Your task to perform on an android device: visit the assistant section in the google photos Image 0: 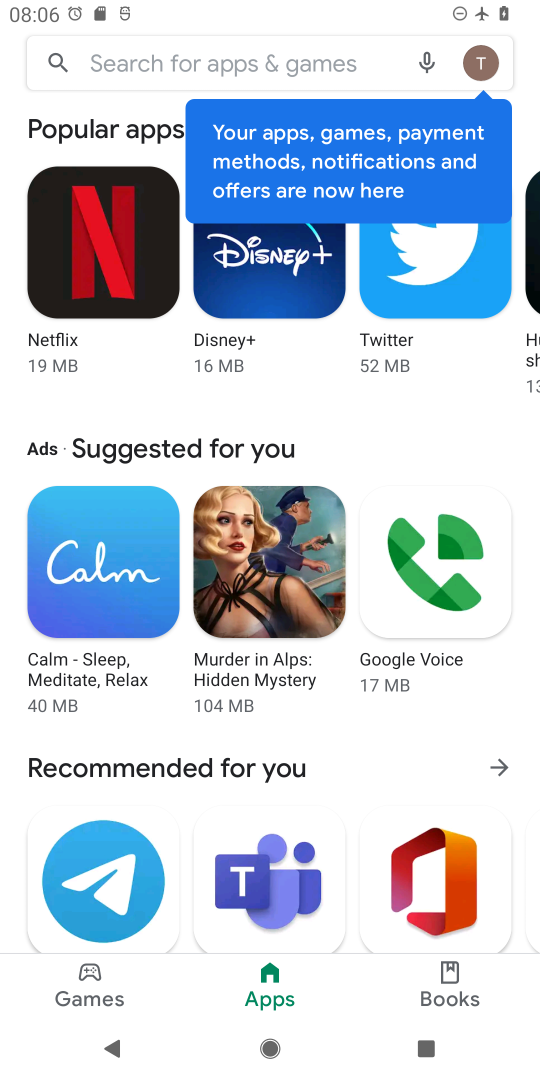
Step 0: press home button
Your task to perform on an android device: visit the assistant section in the google photos Image 1: 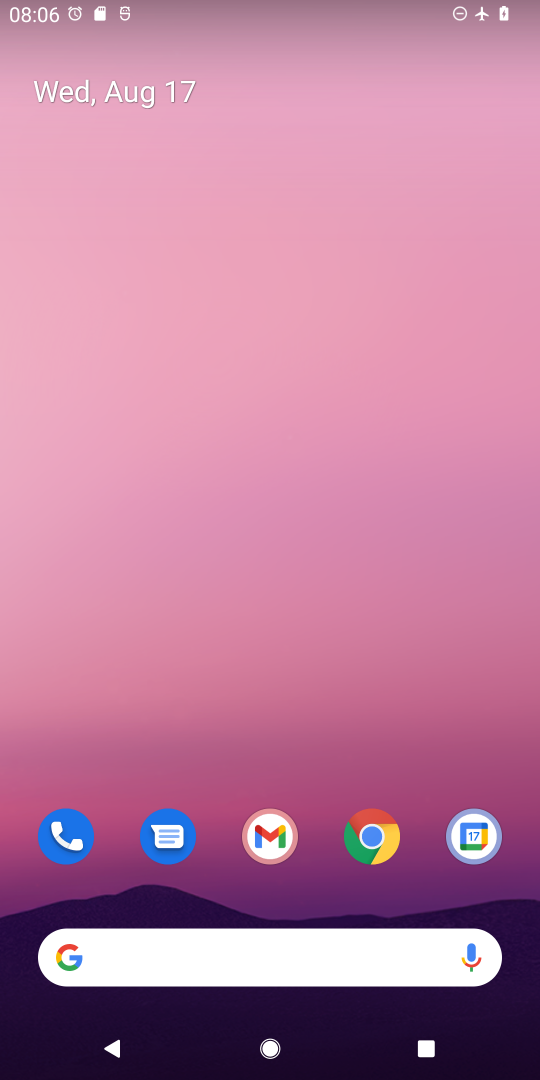
Step 1: drag from (227, 900) to (248, 431)
Your task to perform on an android device: visit the assistant section in the google photos Image 2: 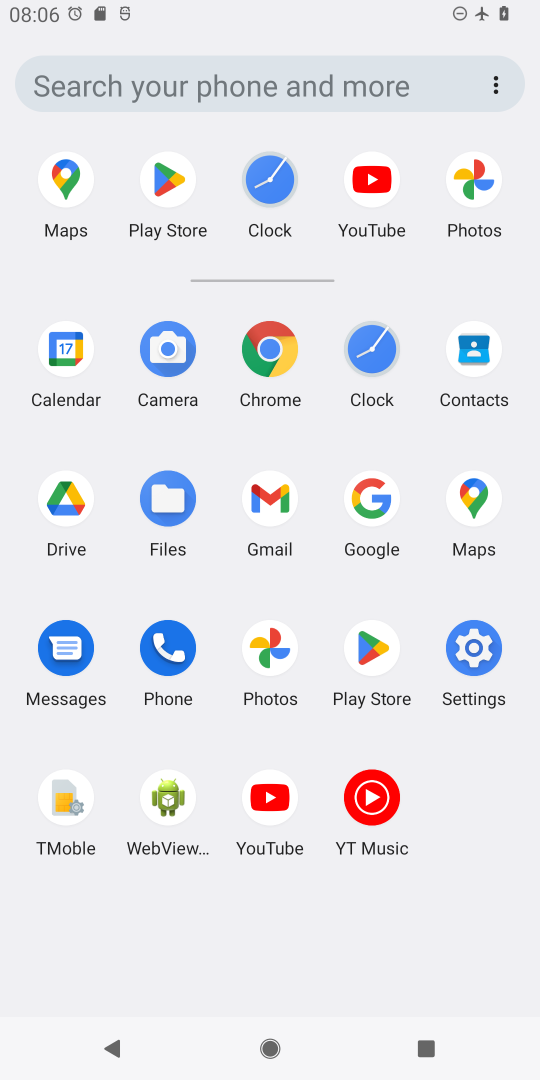
Step 2: click (258, 639)
Your task to perform on an android device: visit the assistant section in the google photos Image 3: 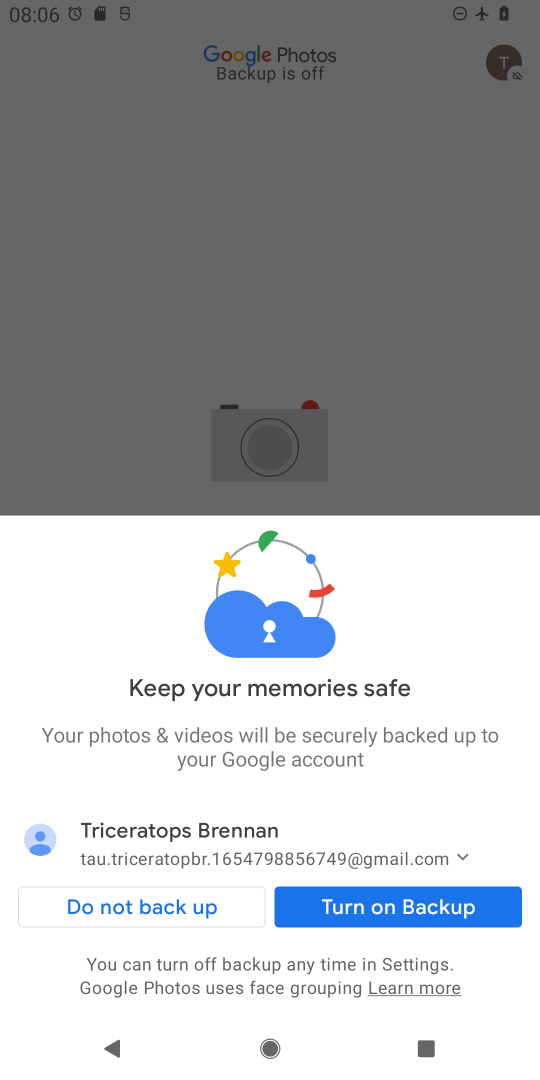
Step 3: click (299, 891)
Your task to perform on an android device: visit the assistant section in the google photos Image 4: 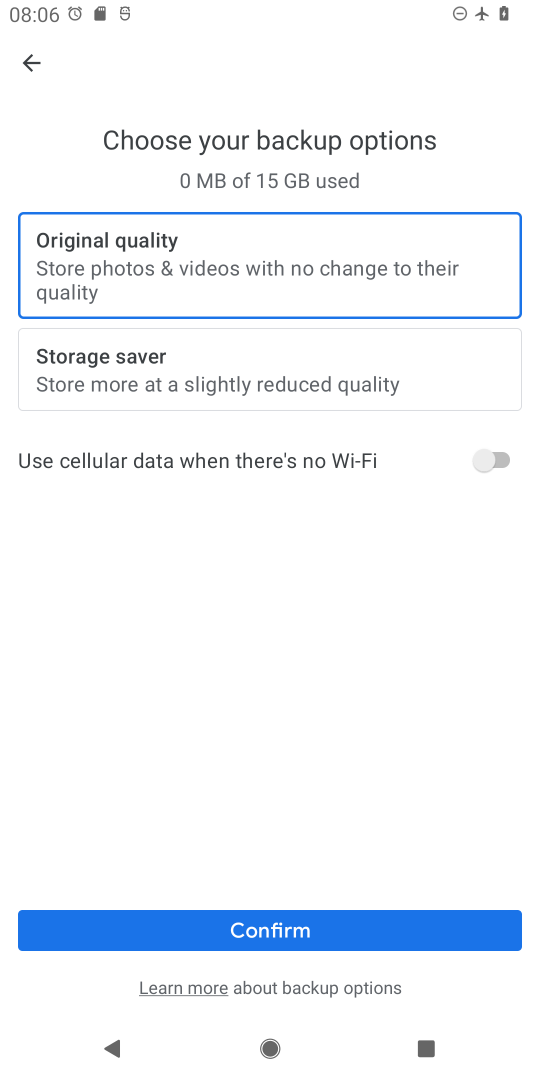
Step 4: click (284, 917)
Your task to perform on an android device: visit the assistant section in the google photos Image 5: 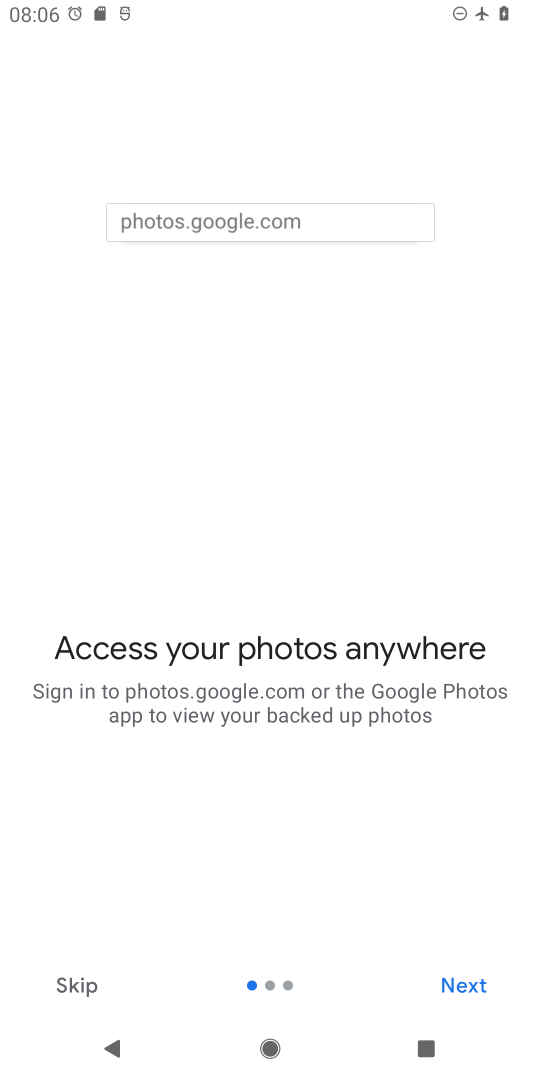
Step 5: click (96, 988)
Your task to perform on an android device: visit the assistant section in the google photos Image 6: 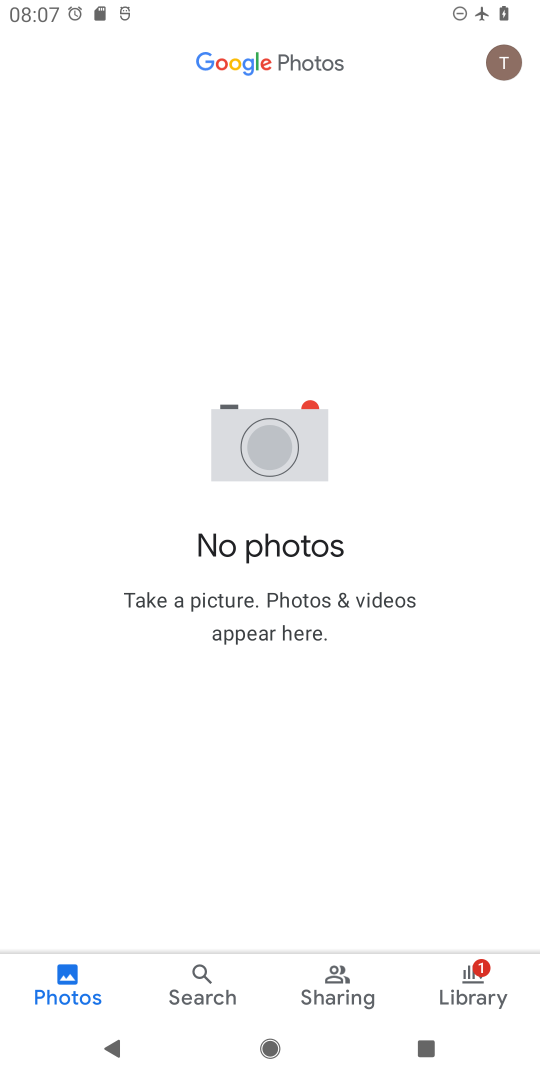
Step 6: task complete